Your task to perform on an android device: check out phone information Image 0: 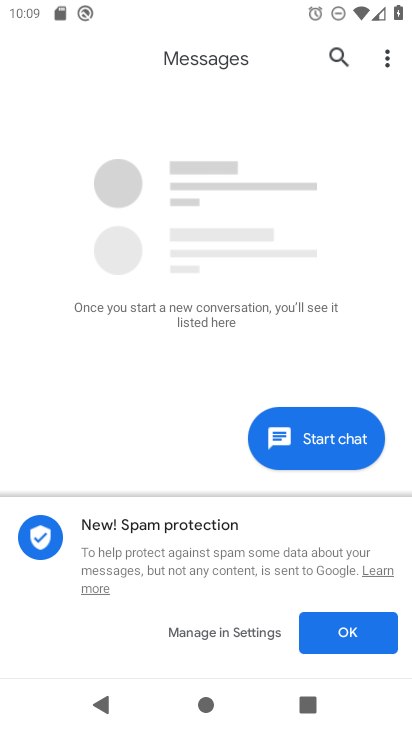
Step 0: press home button
Your task to perform on an android device: check out phone information Image 1: 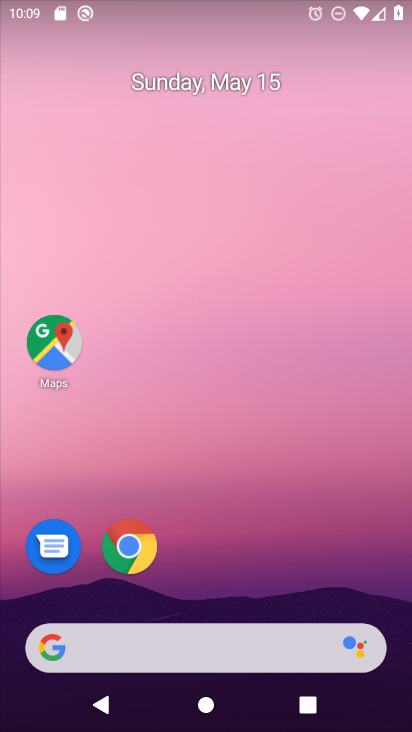
Step 1: drag from (302, 559) to (315, 129)
Your task to perform on an android device: check out phone information Image 2: 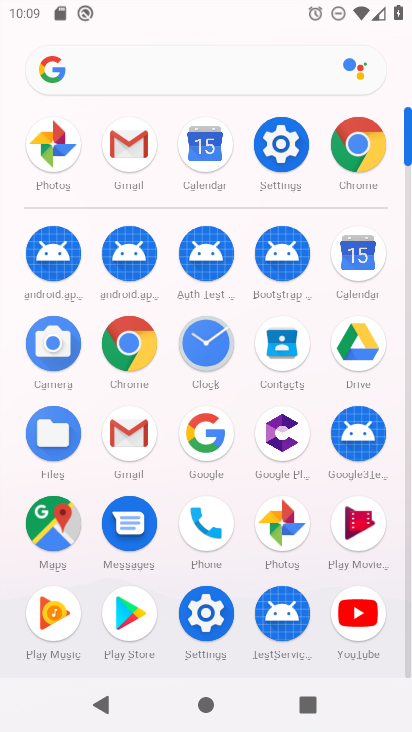
Step 2: click (211, 524)
Your task to perform on an android device: check out phone information Image 3: 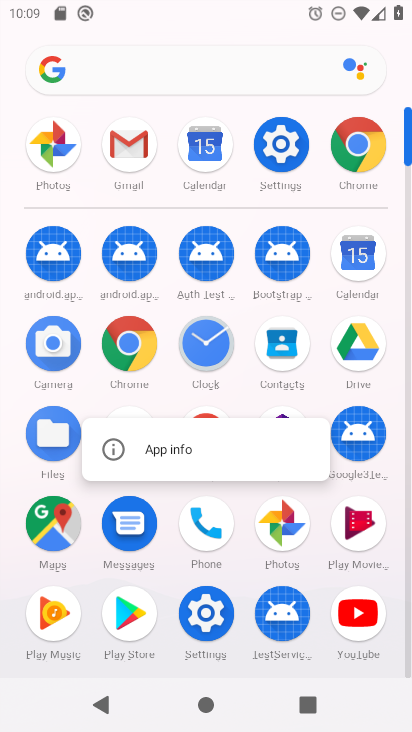
Step 3: click (204, 462)
Your task to perform on an android device: check out phone information Image 4: 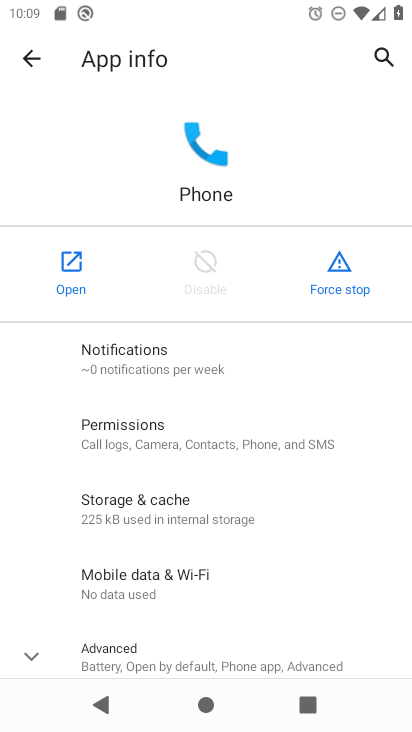
Step 4: task complete